Your task to perform on an android device: Check the weather Image 0: 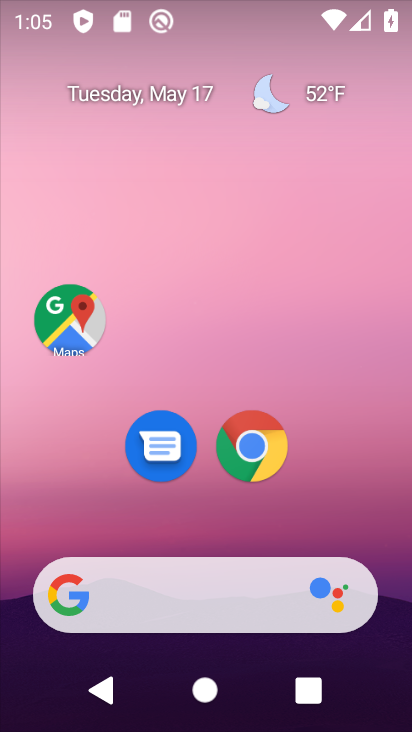
Step 0: click (310, 100)
Your task to perform on an android device: Check the weather Image 1: 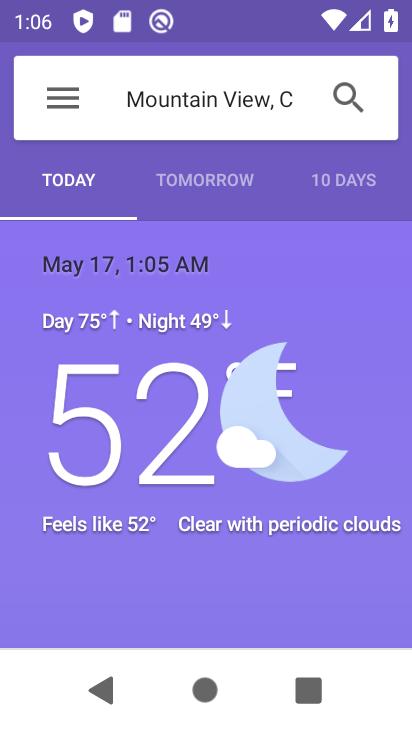
Step 1: task complete